Your task to perform on an android device: Add "usb-c" to the cart on newegg.com, then select checkout. Image 0: 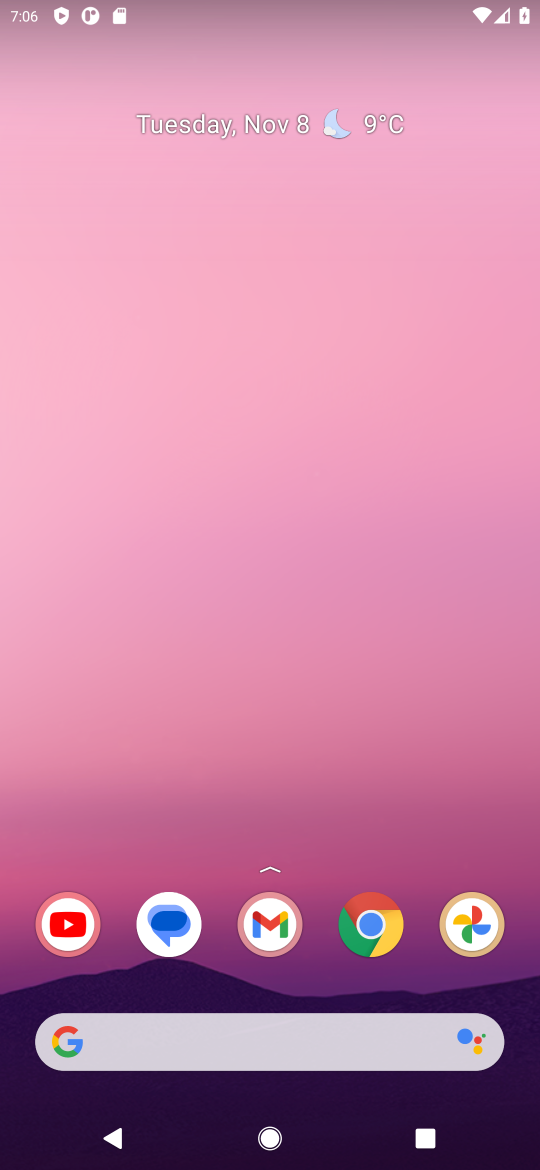
Step 0: click (263, 1042)
Your task to perform on an android device: Add "usb-c" to the cart on newegg.com, then select checkout. Image 1: 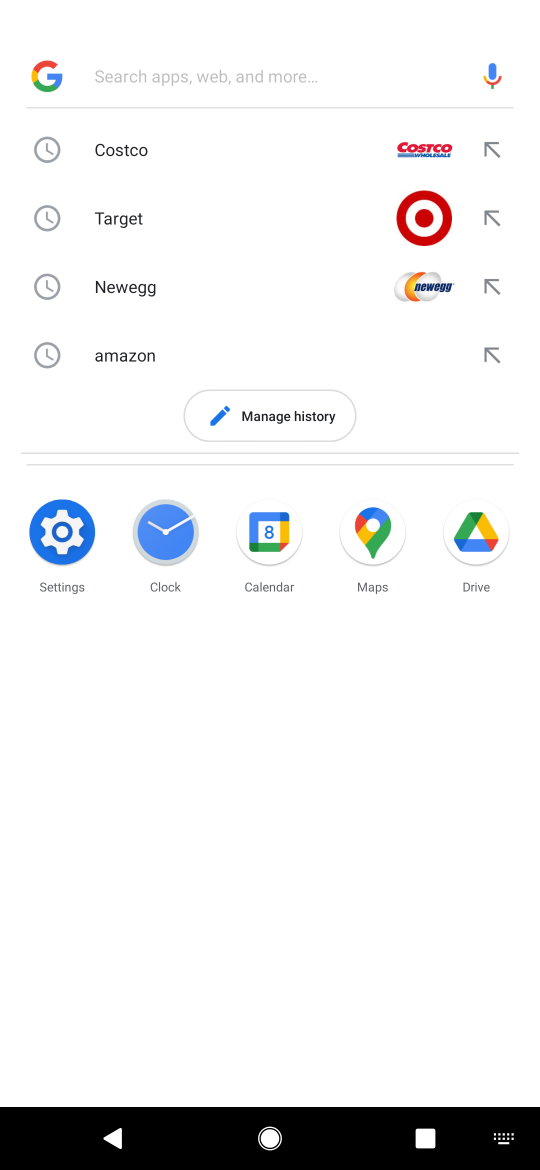
Step 1: click (170, 291)
Your task to perform on an android device: Add "usb-c" to the cart on newegg.com, then select checkout. Image 2: 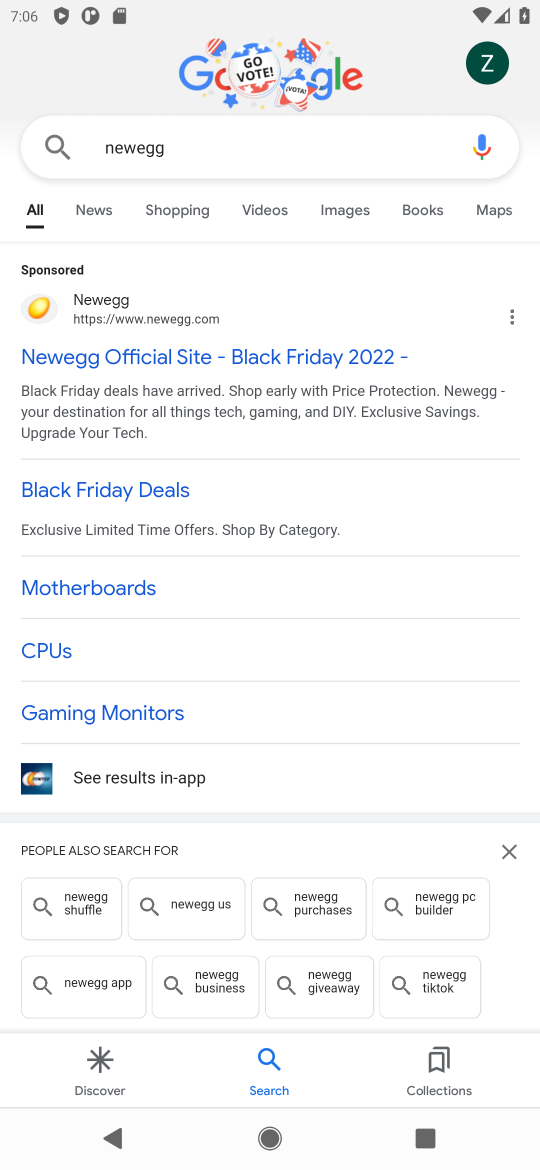
Step 2: click (115, 288)
Your task to perform on an android device: Add "usb-c" to the cart on newegg.com, then select checkout. Image 3: 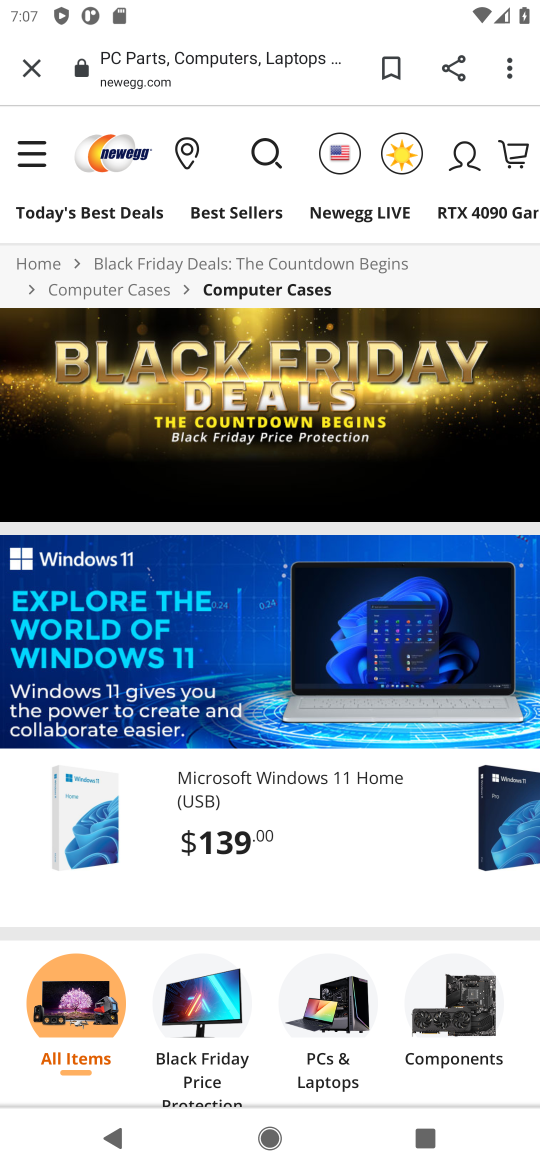
Step 3: click (260, 156)
Your task to perform on an android device: Add "usb-c" to the cart on newegg.com, then select checkout. Image 4: 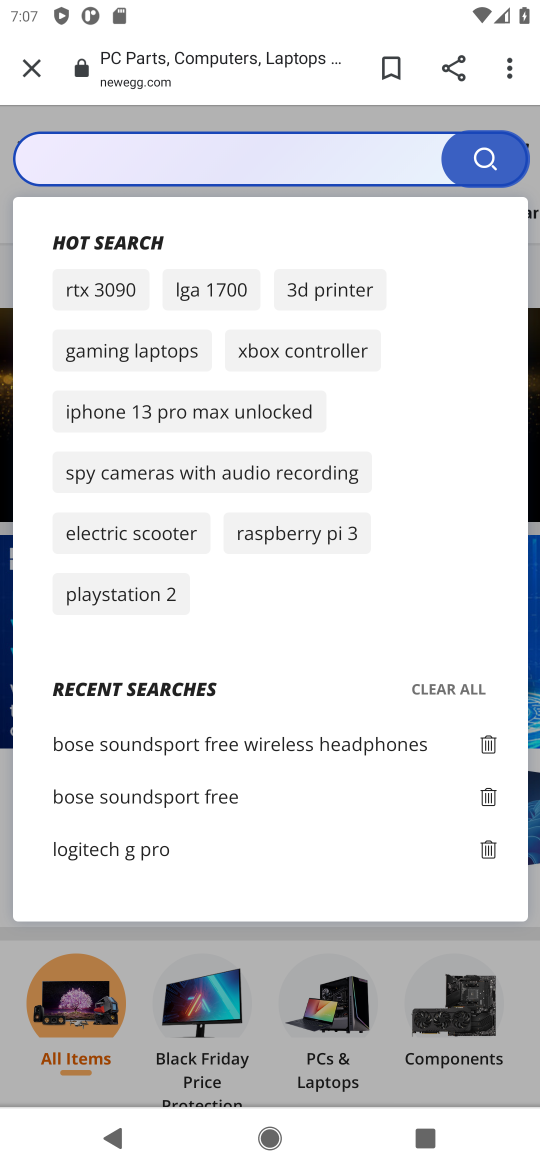
Step 4: click (245, 164)
Your task to perform on an android device: Add "usb-c" to the cart on newegg.com, then select checkout. Image 5: 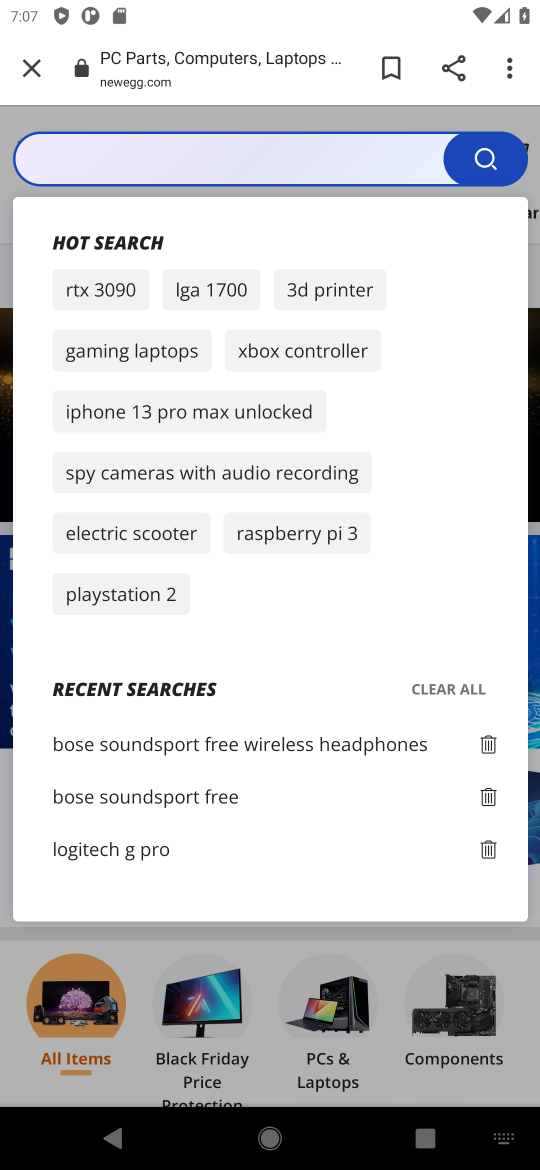
Step 5: type "usb-c"
Your task to perform on an android device: Add "usb-c" to the cart on newegg.com, then select checkout. Image 6: 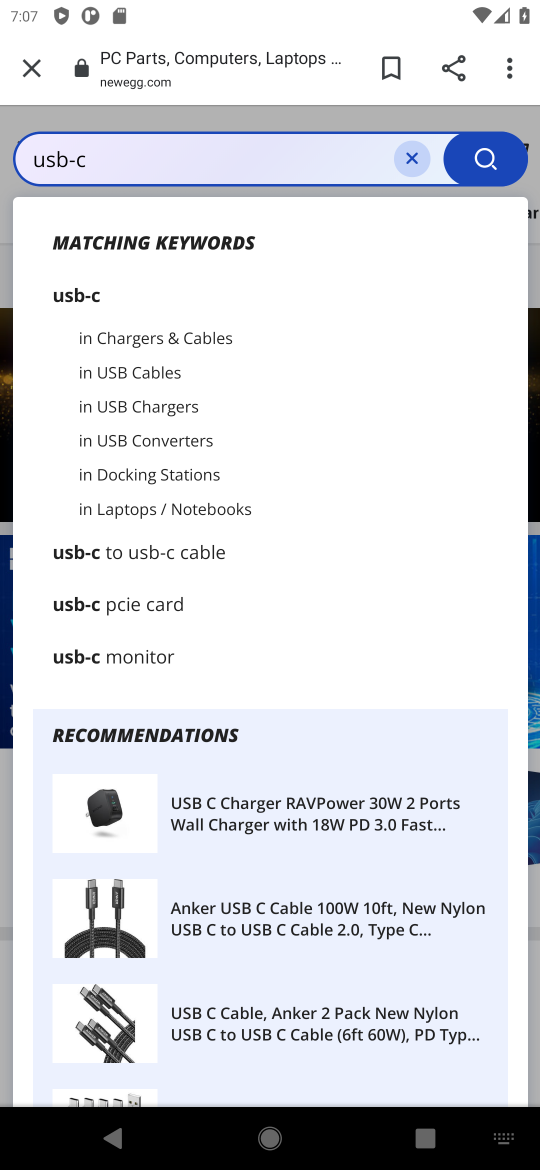
Step 6: click (84, 288)
Your task to perform on an android device: Add "usb-c" to the cart on newegg.com, then select checkout. Image 7: 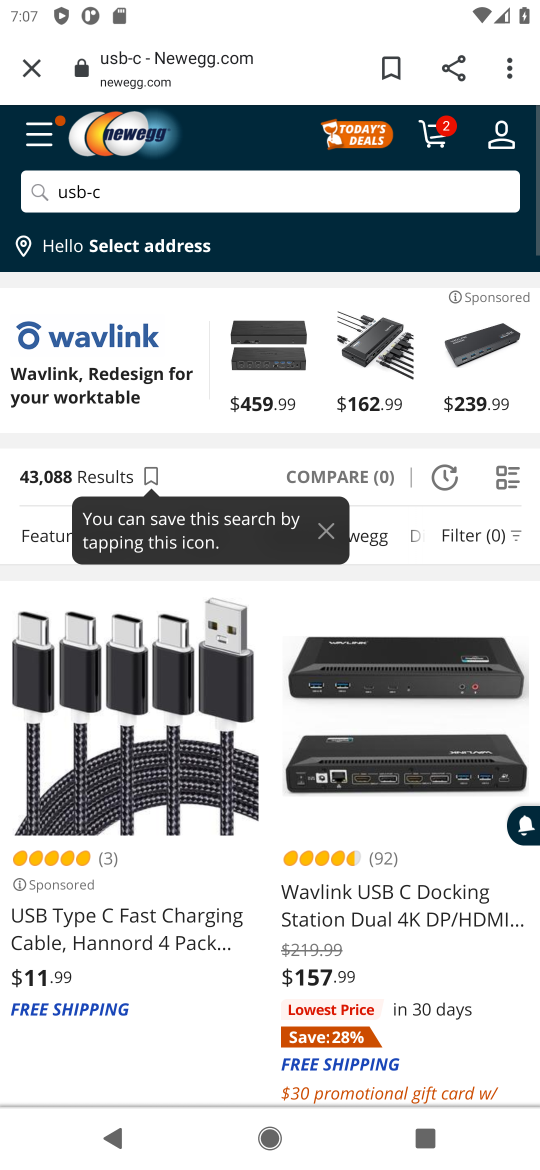
Step 7: click (109, 828)
Your task to perform on an android device: Add "usb-c" to the cart on newegg.com, then select checkout. Image 8: 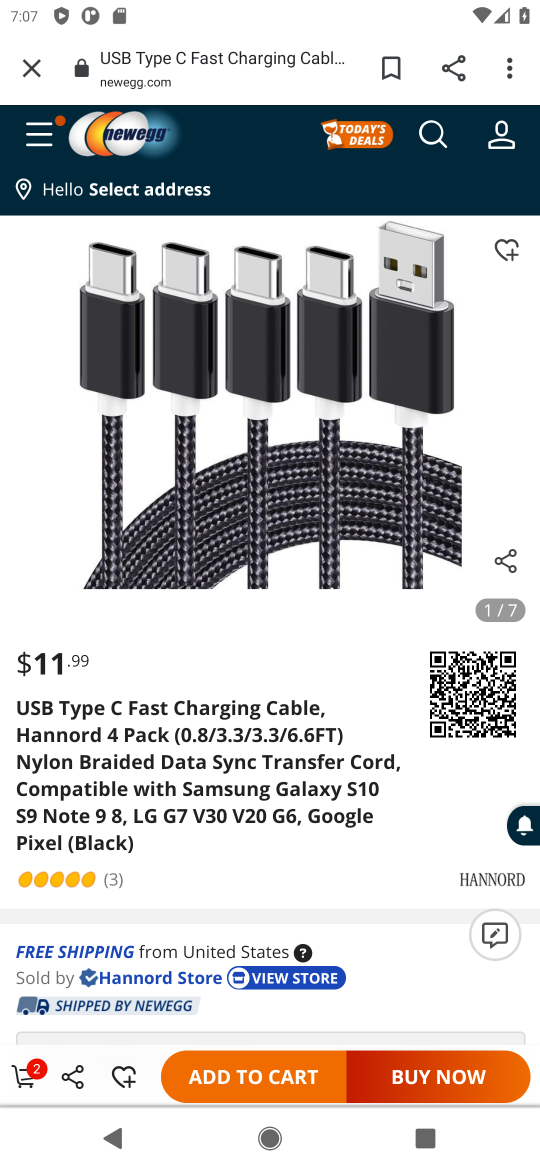
Step 8: click (211, 1089)
Your task to perform on an android device: Add "usb-c" to the cart on newegg.com, then select checkout. Image 9: 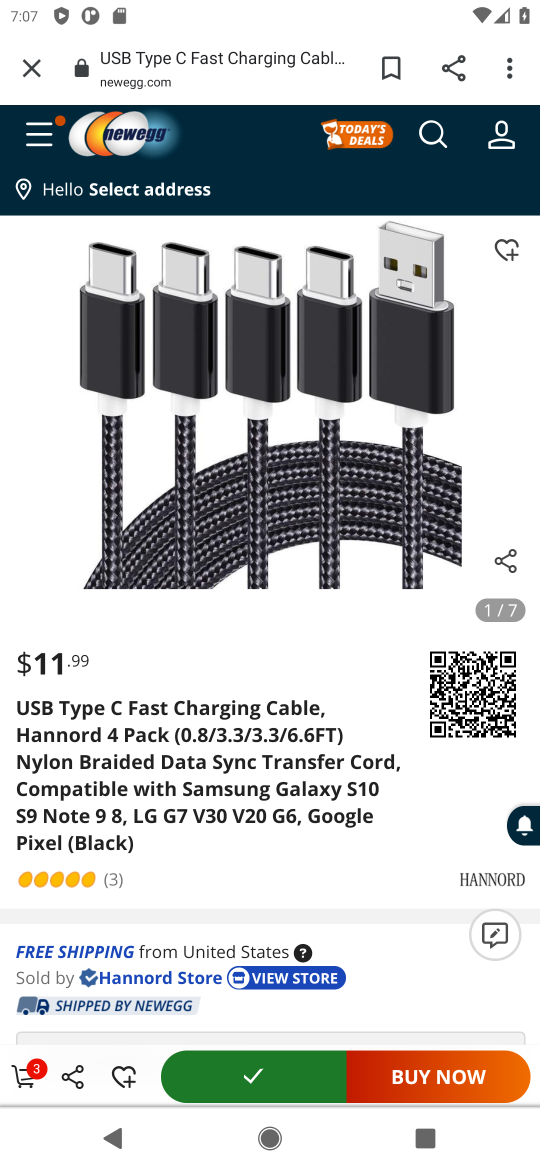
Step 9: click (23, 1056)
Your task to perform on an android device: Add "usb-c" to the cart on newegg.com, then select checkout. Image 10: 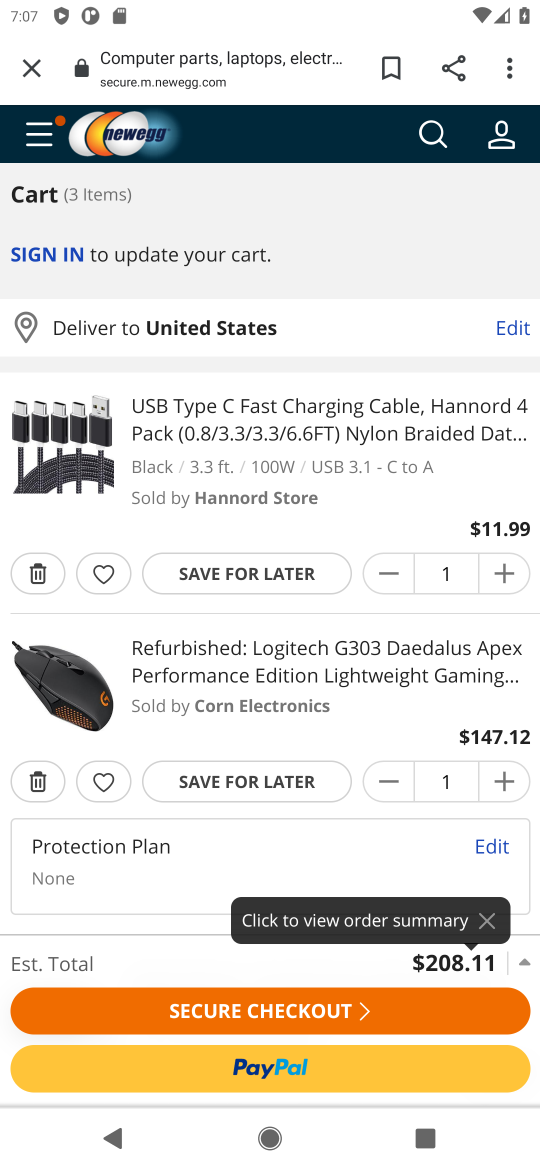
Step 10: click (245, 1008)
Your task to perform on an android device: Add "usb-c" to the cart on newegg.com, then select checkout. Image 11: 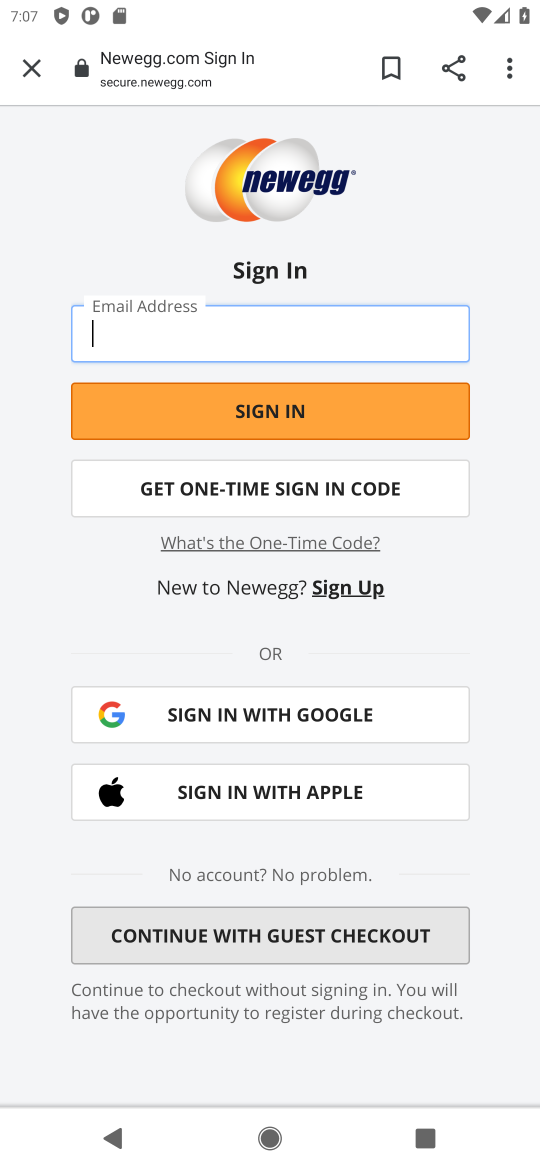
Step 11: task complete